Your task to perform on an android device: Open Youtube and go to the subscriptions tab Image 0: 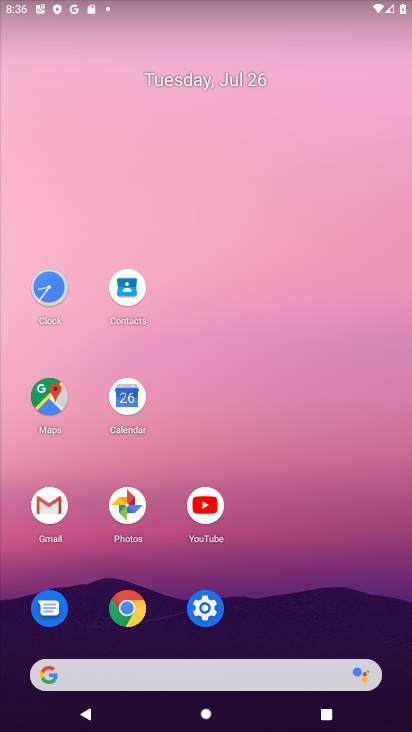
Step 0: click (209, 502)
Your task to perform on an android device: Open Youtube and go to the subscriptions tab Image 1: 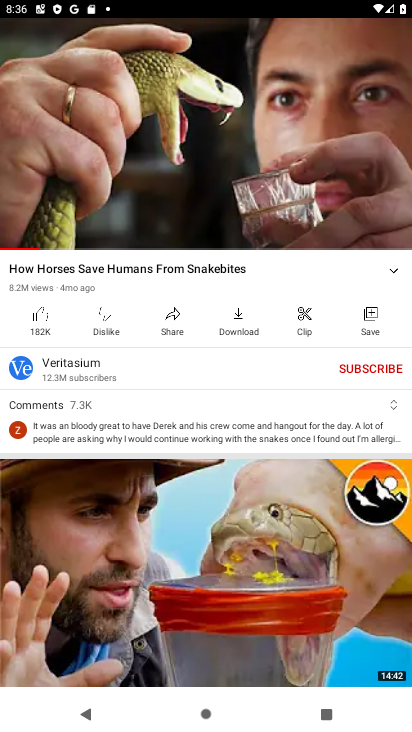
Step 1: press back button
Your task to perform on an android device: Open Youtube and go to the subscriptions tab Image 2: 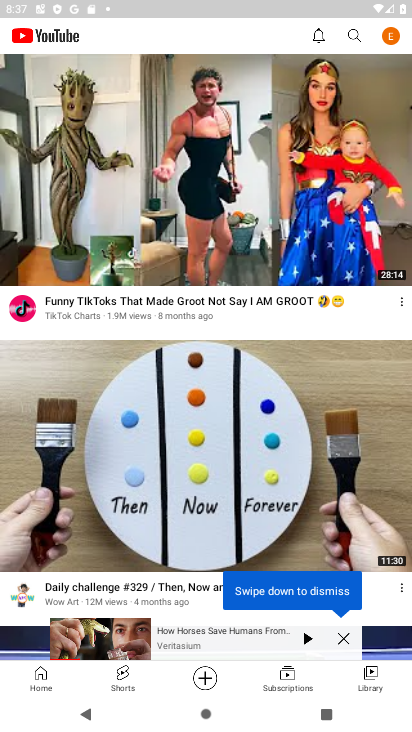
Step 2: click (283, 672)
Your task to perform on an android device: Open Youtube and go to the subscriptions tab Image 3: 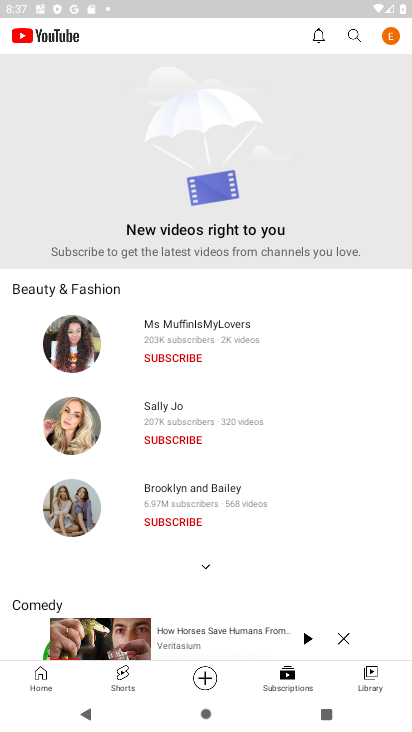
Step 3: task complete